Your task to perform on an android device: check out phone information Image 0: 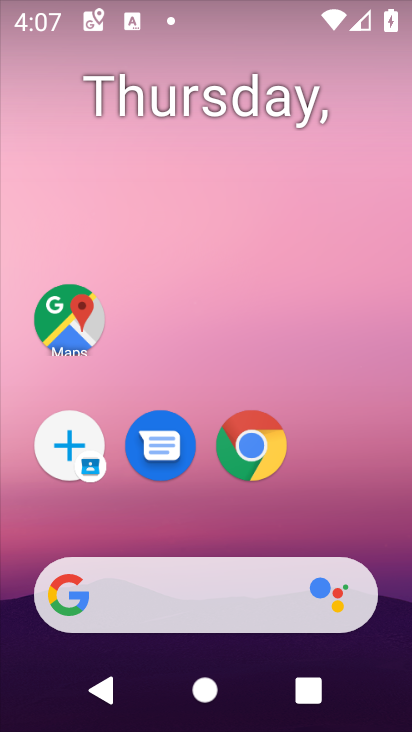
Step 0: drag from (365, 392) to (397, 71)
Your task to perform on an android device: check out phone information Image 1: 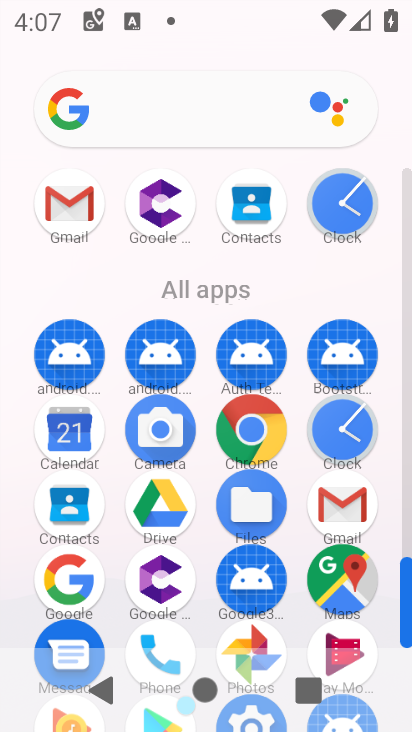
Step 1: drag from (401, 464) to (398, 214)
Your task to perform on an android device: check out phone information Image 2: 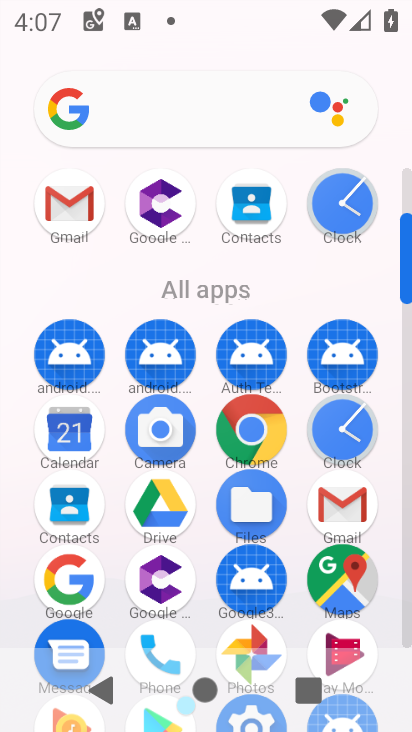
Step 2: drag from (385, 438) to (398, 145)
Your task to perform on an android device: check out phone information Image 3: 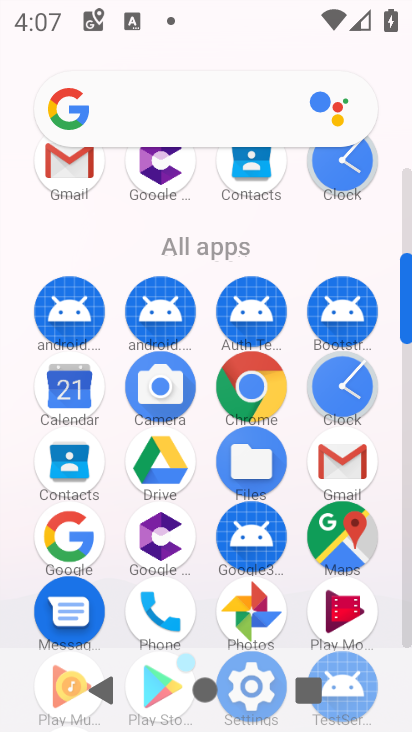
Step 3: drag from (394, 581) to (412, 339)
Your task to perform on an android device: check out phone information Image 4: 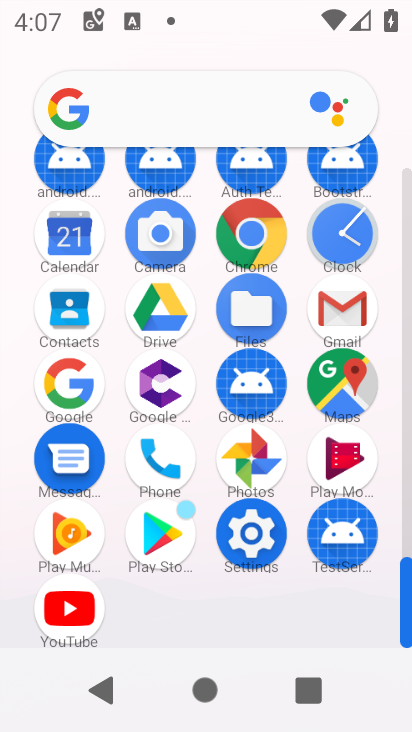
Step 4: click (254, 534)
Your task to perform on an android device: check out phone information Image 5: 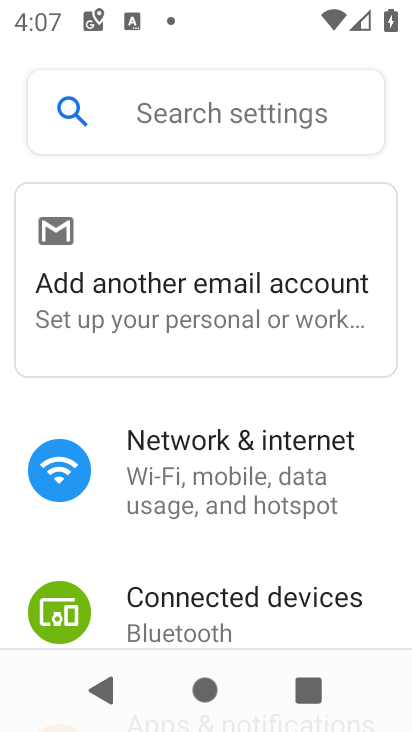
Step 5: drag from (281, 575) to (293, 239)
Your task to perform on an android device: check out phone information Image 6: 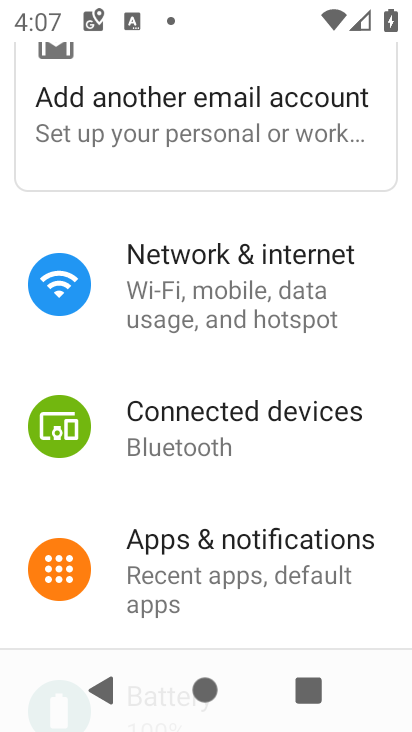
Step 6: drag from (286, 559) to (274, 186)
Your task to perform on an android device: check out phone information Image 7: 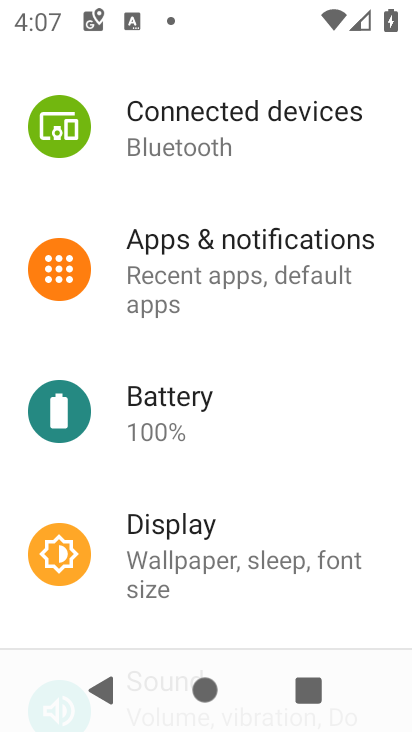
Step 7: drag from (287, 539) to (250, 224)
Your task to perform on an android device: check out phone information Image 8: 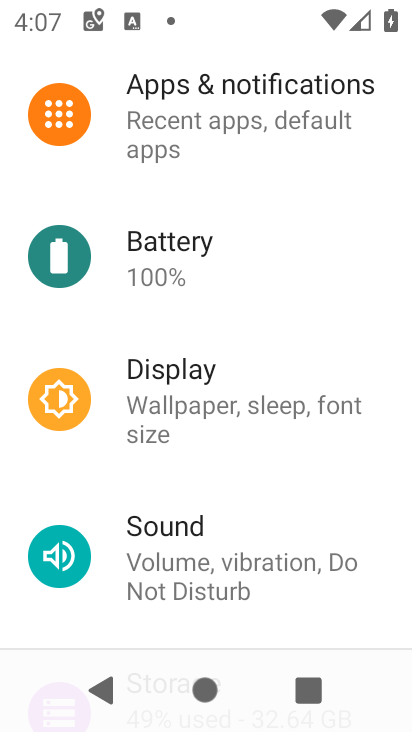
Step 8: drag from (254, 547) to (215, 227)
Your task to perform on an android device: check out phone information Image 9: 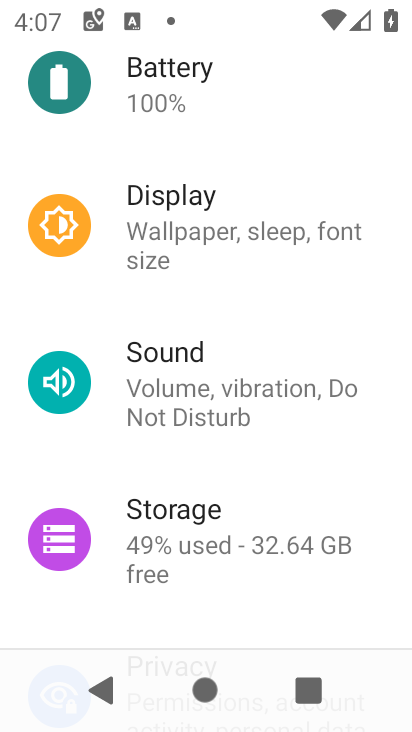
Step 9: drag from (261, 566) to (302, 220)
Your task to perform on an android device: check out phone information Image 10: 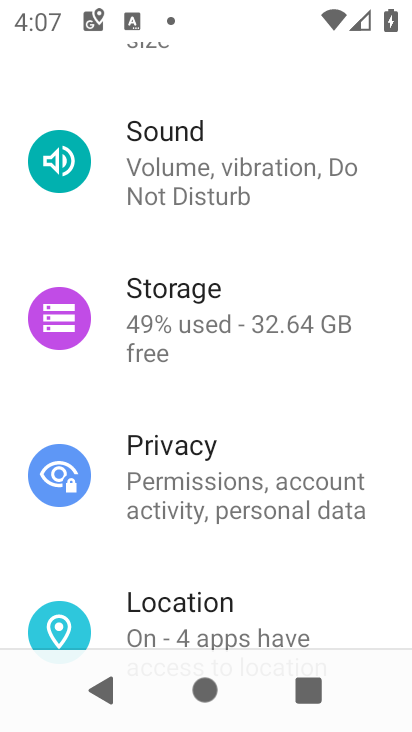
Step 10: drag from (306, 569) to (347, 289)
Your task to perform on an android device: check out phone information Image 11: 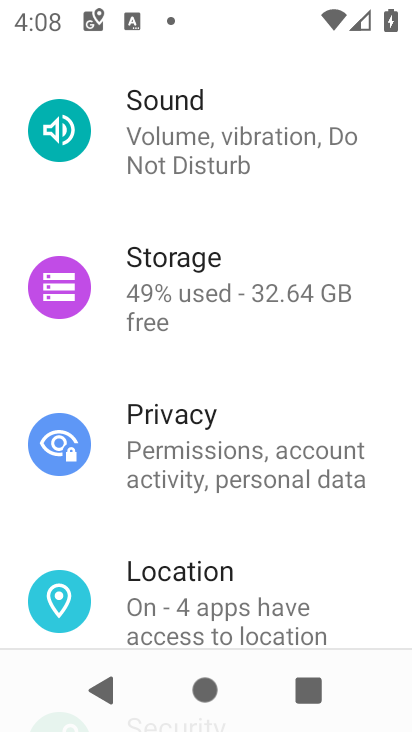
Step 11: drag from (267, 458) to (283, 224)
Your task to perform on an android device: check out phone information Image 12: 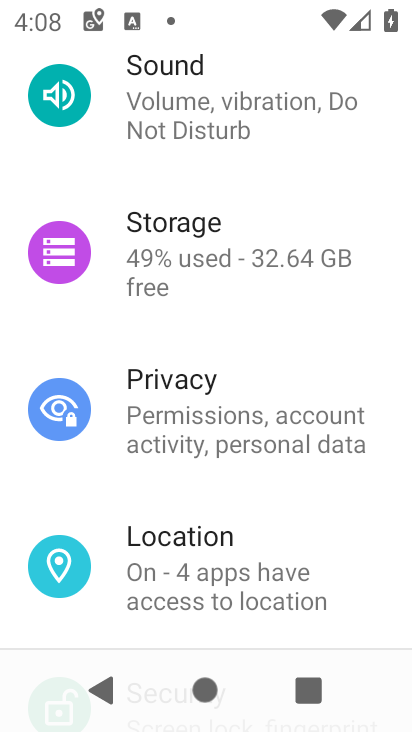
Step 12: drag from (294, 595) to (332, 270)
Your task to perform on an android device: check out phone information Image 13: 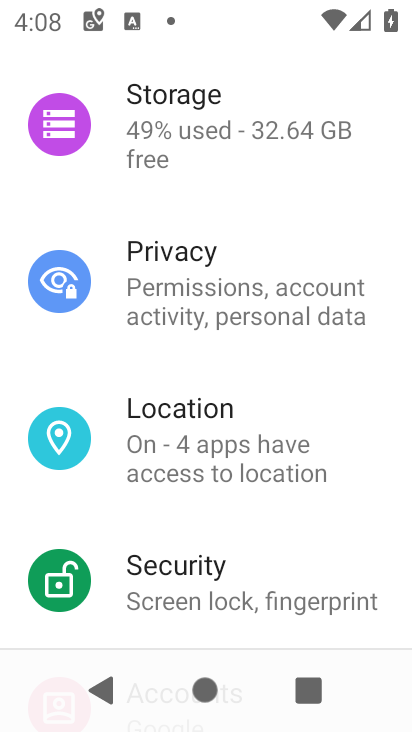
Step 13: drag from (272, 560) to (297, 228)
Your task to perform on an android device: check out phone information Image 14: 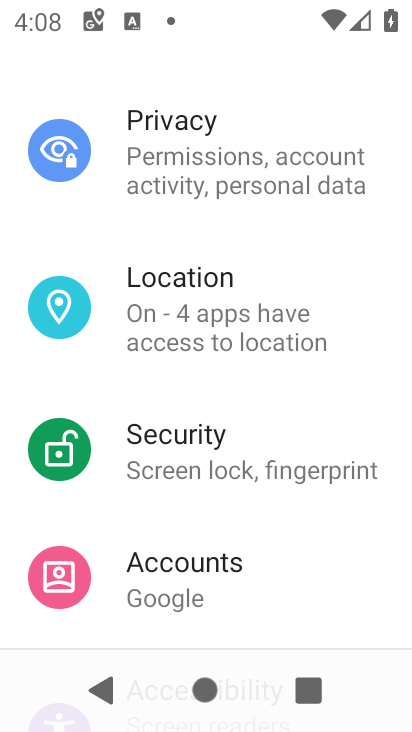
Step 14: drag from (252, 544) to (272, 214)
Your task to perform on an android device: check out phone information Image 15: 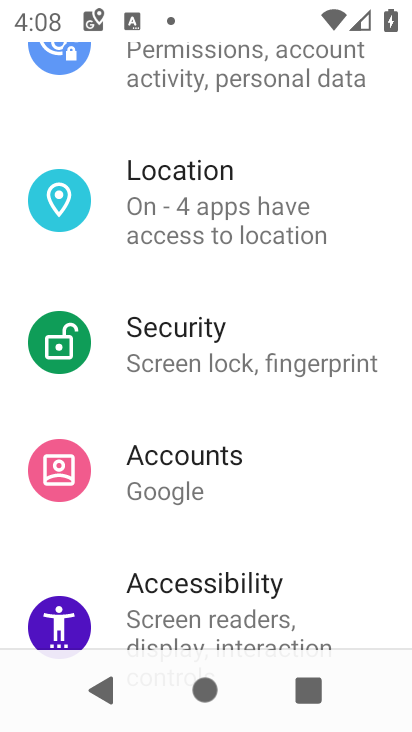
Step 15: drag from (265, 561) to (300, 155)
Your task to perform on an android device: check out phone information Image 16: 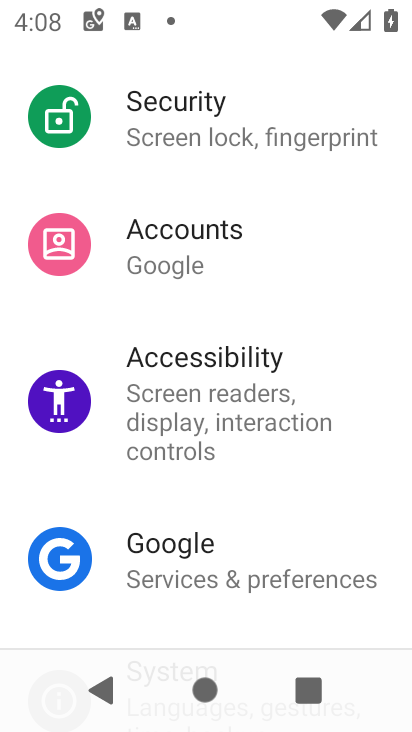
Step 16: drag from (289, 507) to (330, 151)
Your task to perform on an android device: check out phone information Image 17: 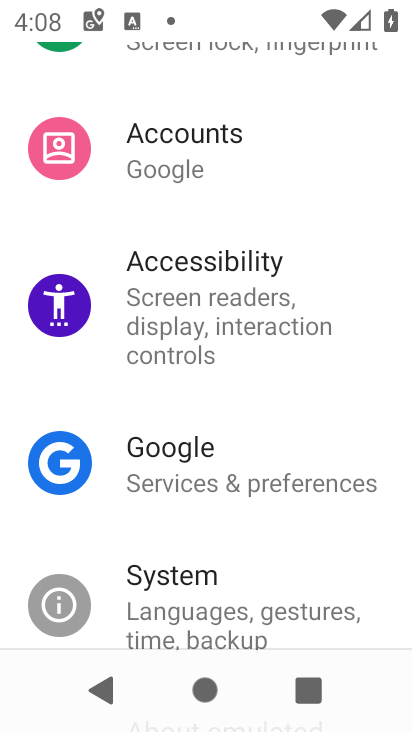
Step 17: drag from (265, 560) to (288, 146)
Your task to perform on an android device: check out phone information Image 18: 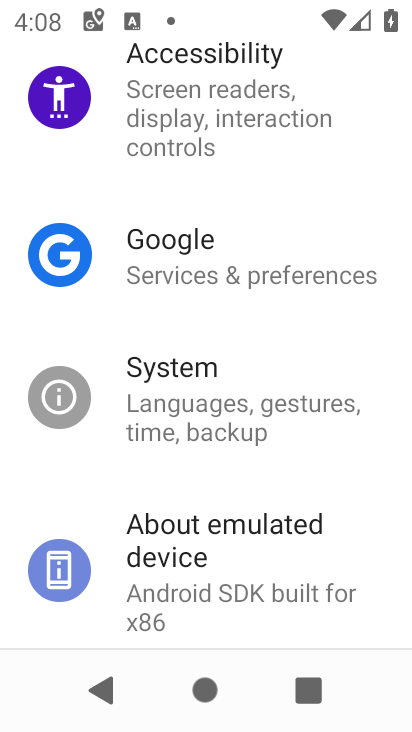
Step 18: drag from (246, 524) to (219, 131)
Your task to perform on an android device: check out phone information Image 19: 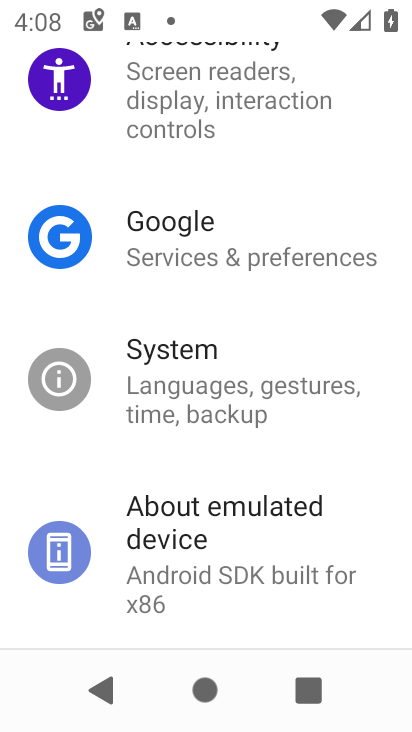
Step 19: click (220, 560)
Your task to perform on an android device: check out phone information Image 20: 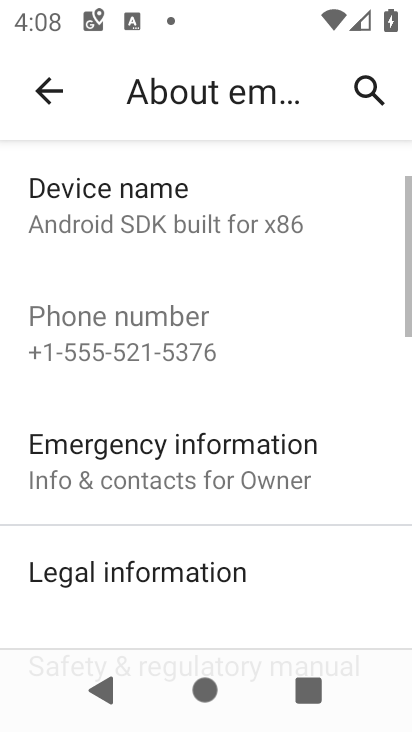
Step 20: task complete